Your task to perform on an android device: Open sound settings Image 0: 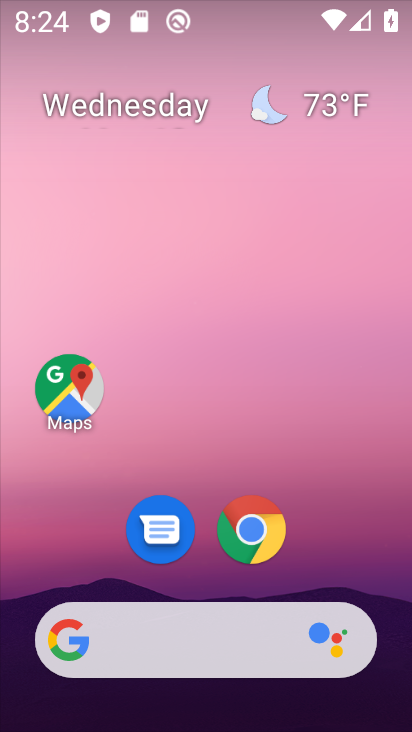
Step 0: drag from (349, 523) to (384, 203)
Your task to perform on an android device: Open sound settings Image 1: 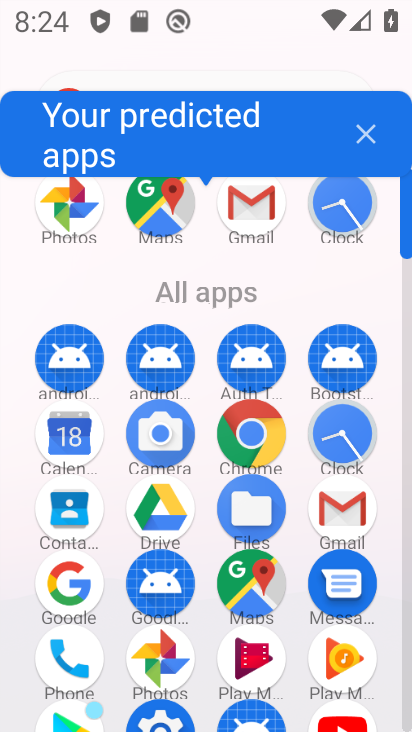
Step 1: drag from (384, 583) to (384, 431)
Your task to perform on an android device: Open sound settings Image 2: 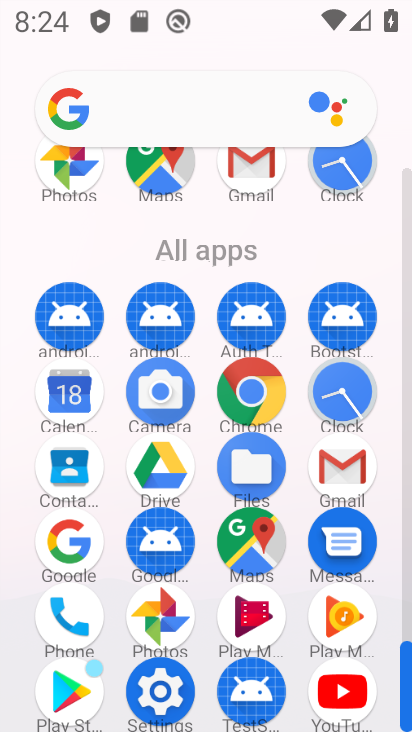
Step 2: click (155, 695)
Your task to perform on an android device: Open sound settings Image 3: 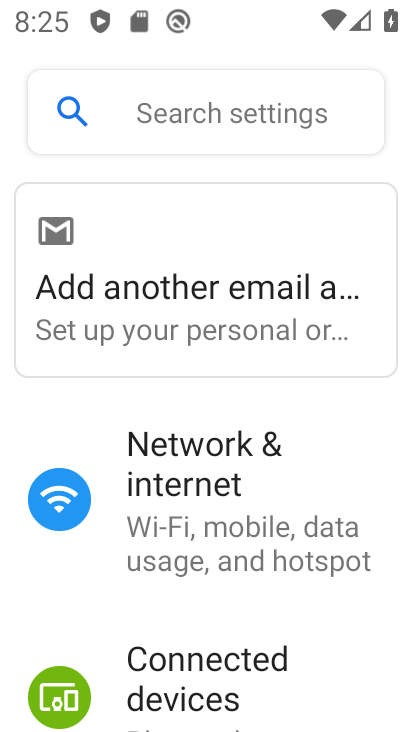
Step 3: drag from (326, 648) to (357, 505)
Your task to perform on an android device: Open sound settings Image 4: 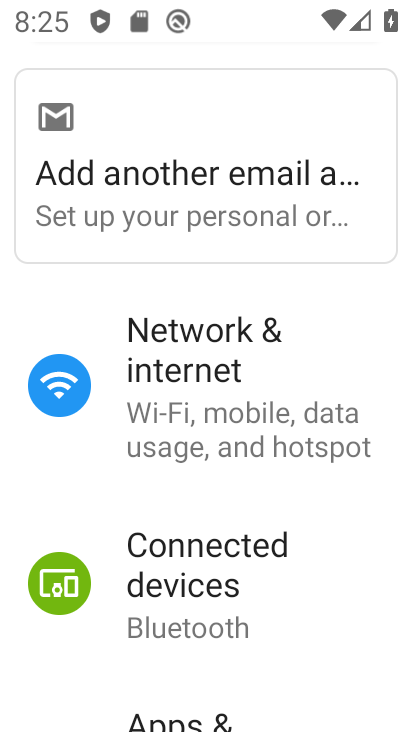
Step 4: drag from (364, 655) to (361, 550)
Your task to perform on an android device: Open sound settings Image 5: 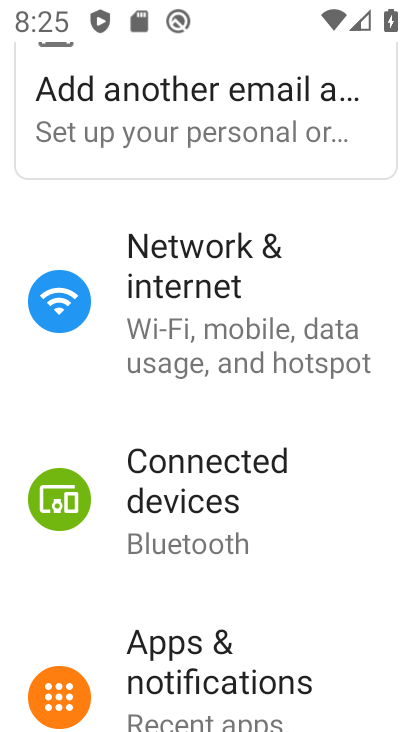
Step 5: drag from (368, 678) to (361, 577)
Your task to perform on an android device: Open sound settings Image 6: 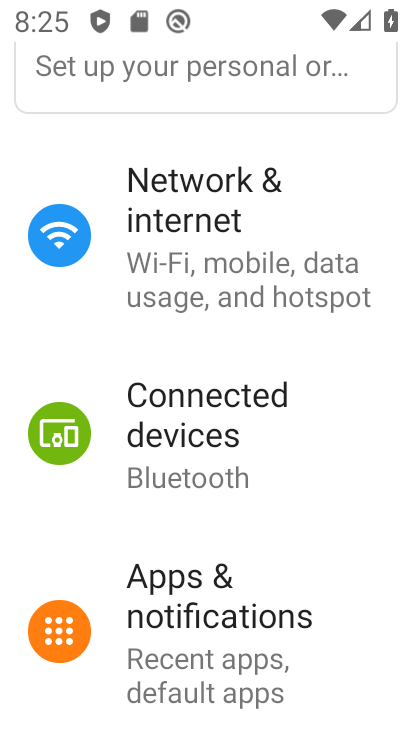
Step 6: drag from (356, 665) to (360, 569)
Your task to perform on an android device: Open sound settings Image 7: 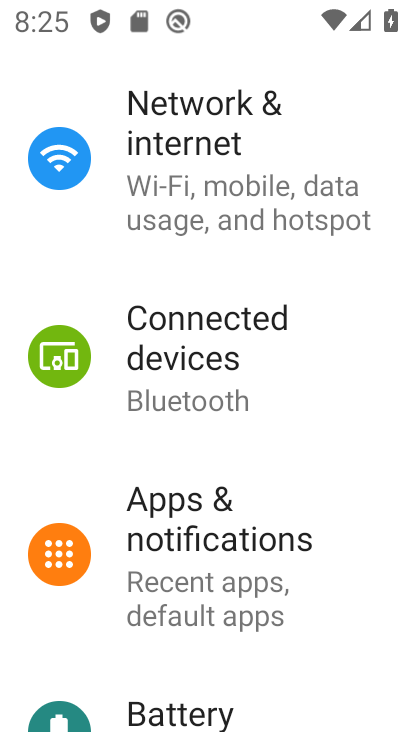
Step 7: drag from (354, 656) to (353, 570)
Your task to perform on an android device: Open sound settings Image 8: 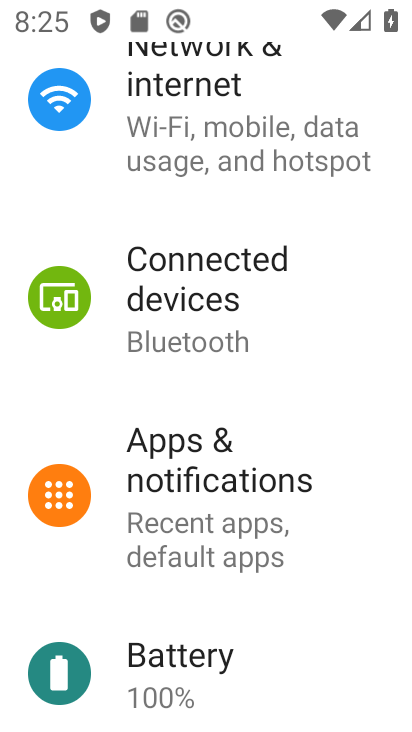
Step 8: drag from (362, 668) to (360, 580)
Your task to perform on an android device: Open sound settings Image 9: 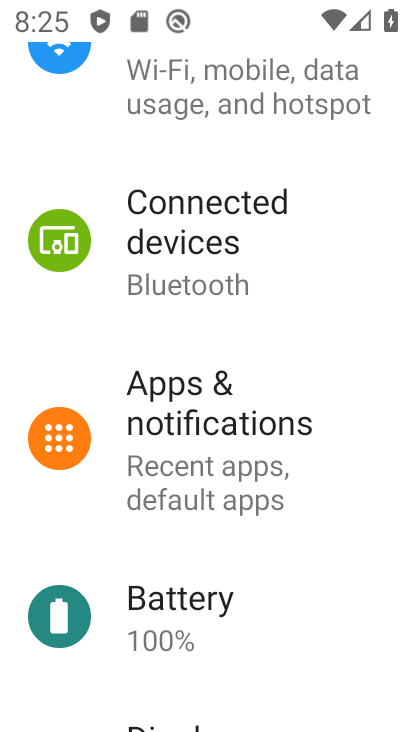
Step 9: drag from (354, 668) to (350, 540)
Your task to perform on an android device: Open sound settings Image 10: 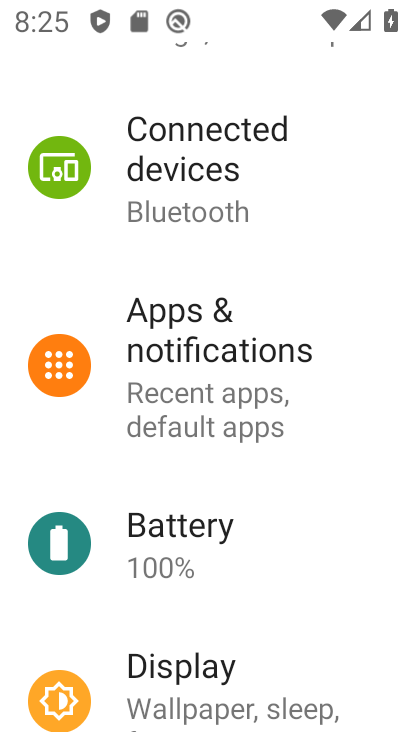
Step 10: drag from (368, 665) to (362, 567)
Your task to perform on an android device: Open sound settings Image 11: 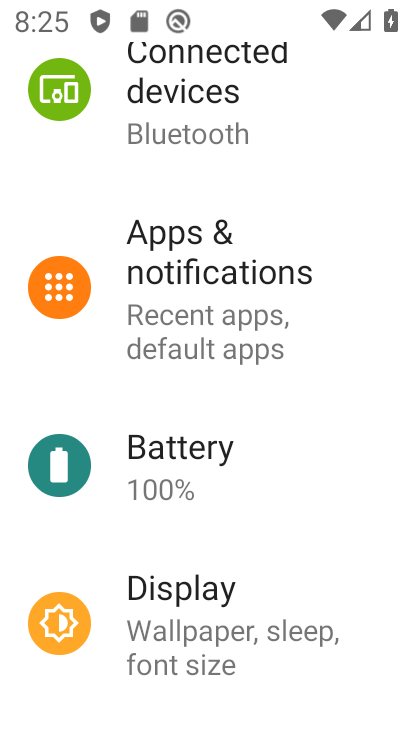
Step 11: drag from (363, 684) to (357, 575)
Your task to perform on an android device: Open sound settings Image 12: 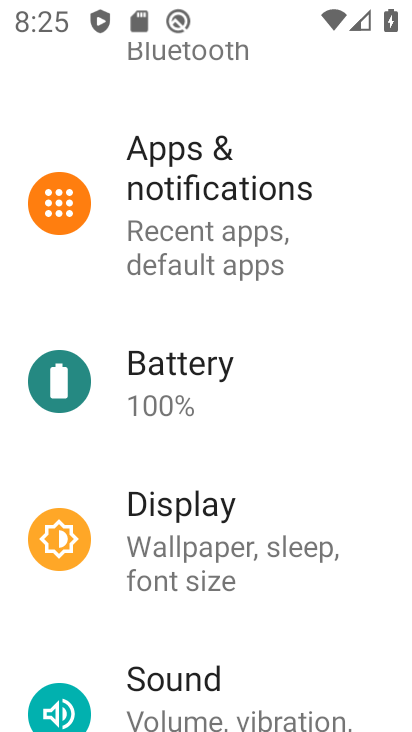
Step 12: drag from (354, 663) to (355, 555)
Your task to perform on an android device: Open sound settings Image 13: 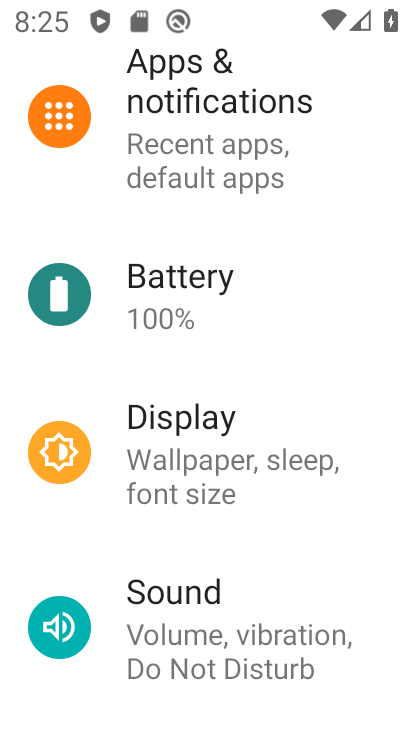
Step 13: drag from (368, 674) to (369, 593)
Your task to perform on an android device: Open sound settings Image 14: 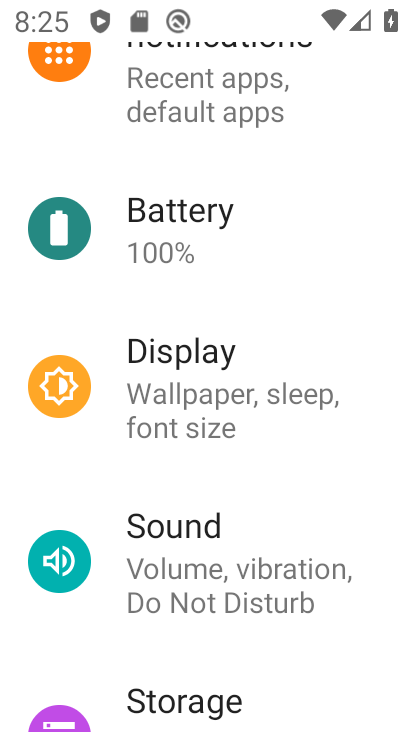
Step 14: click (280, 582)
Your task to perform on an android device: Open sound settings Image 15: 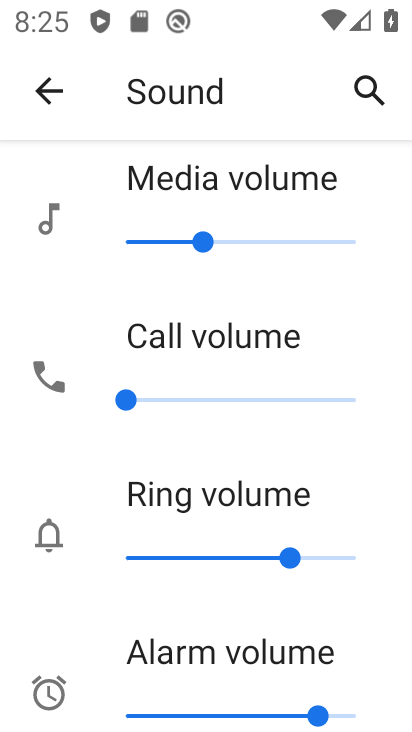
Step 15: task complete